Your task to perform on an android device: open app "Messages" Image 0: 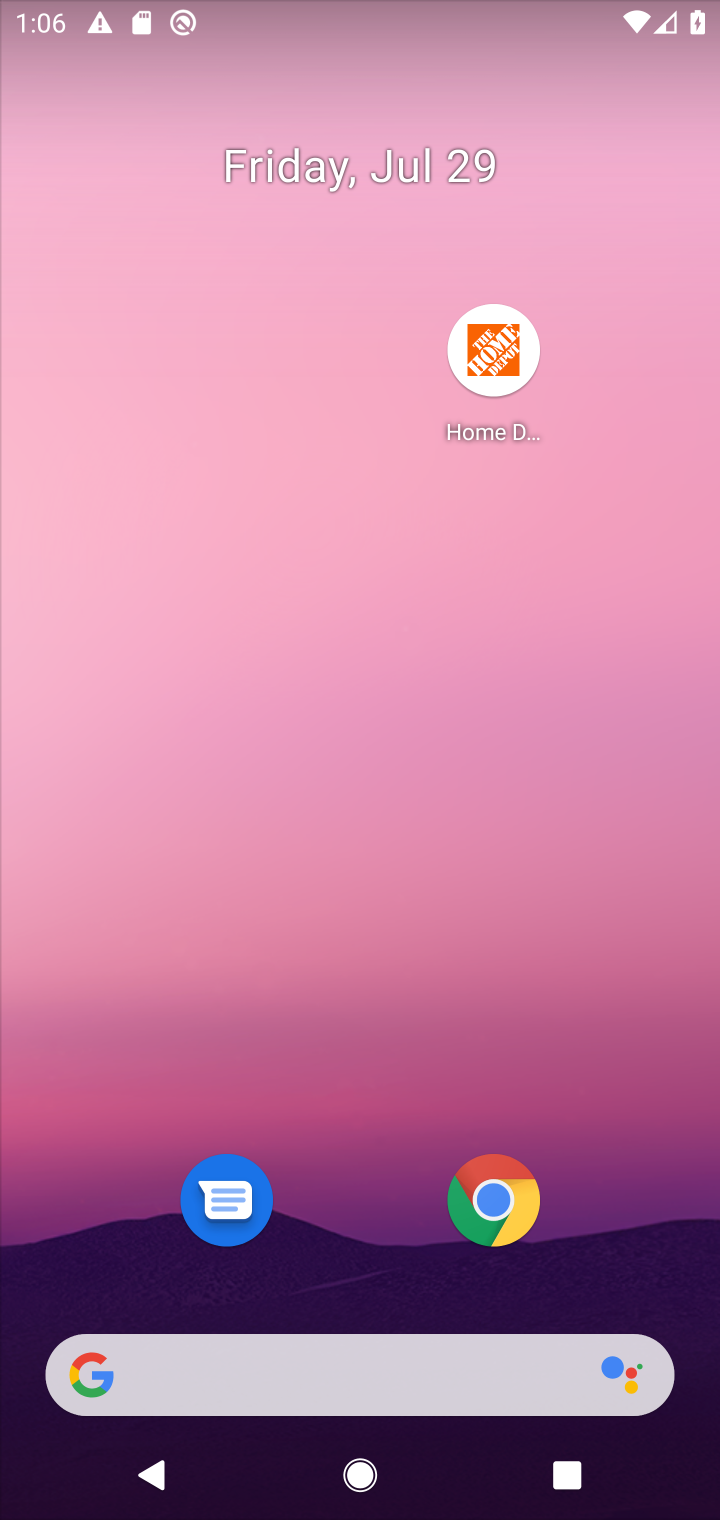
Step 0: drag from (562, 979) to (548, 127)
Your task to perform on an android device: open app "Messages" Image 1: 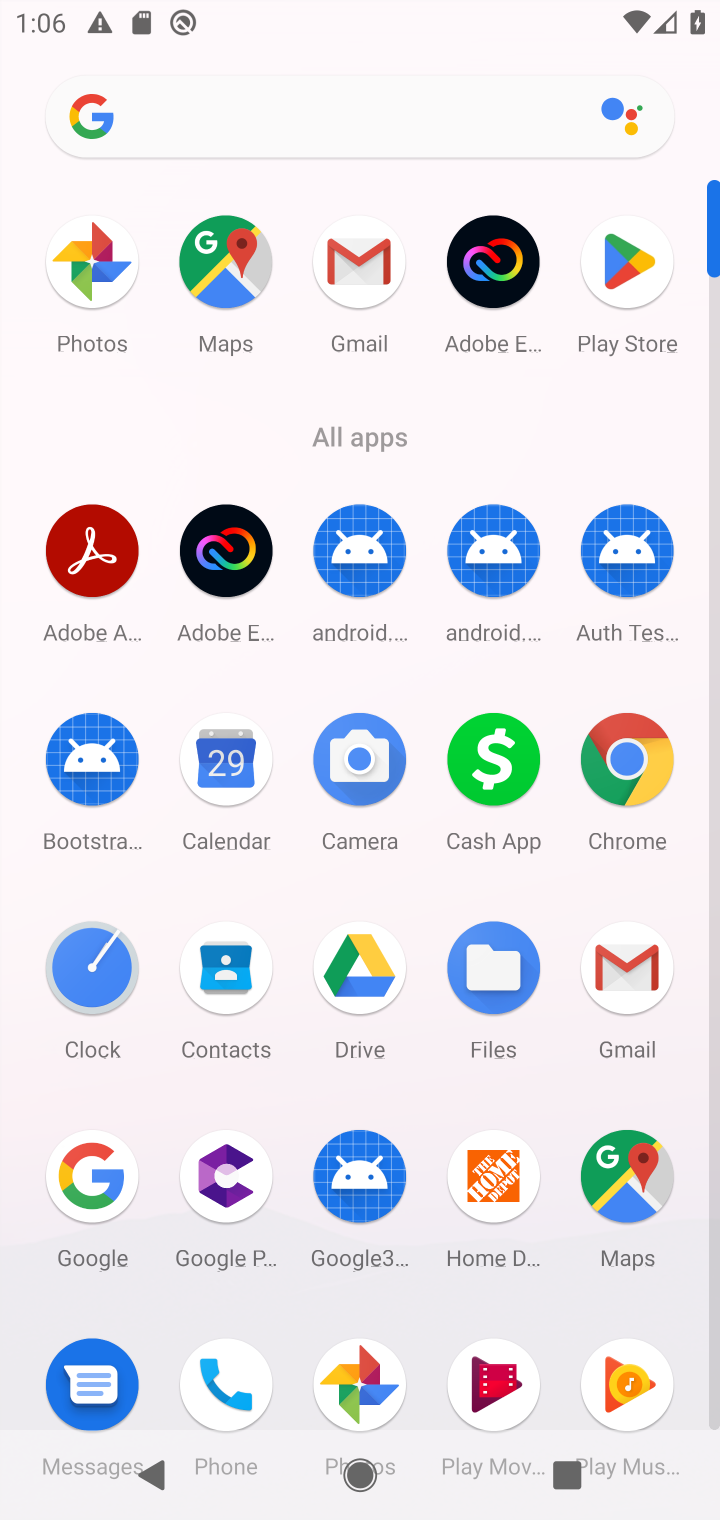
Step 1: click (627, 259)
Your task to perform on an android device: open app "Messages" Image 2: 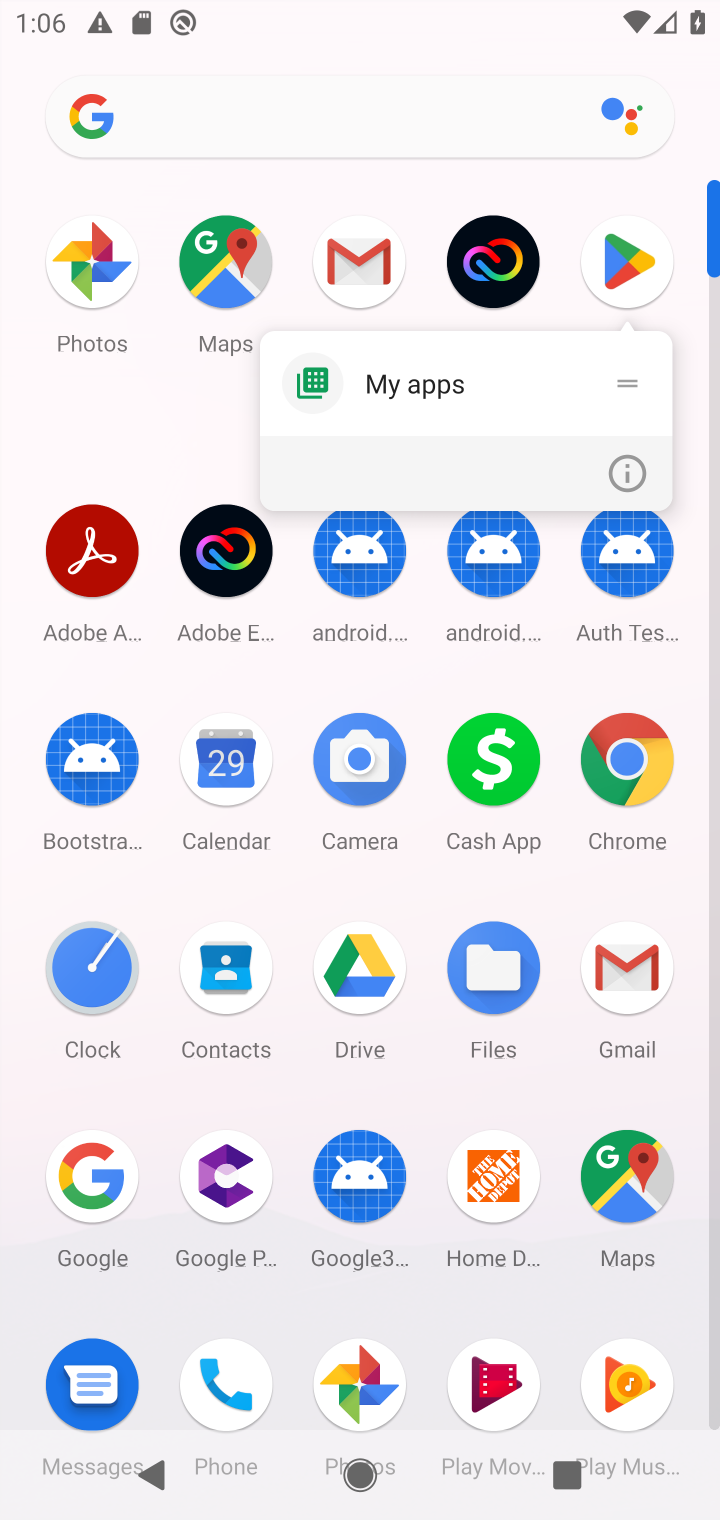
Step 2: click (624, 255)
Your task to perform on an android device: open app "Messages" Image 3: 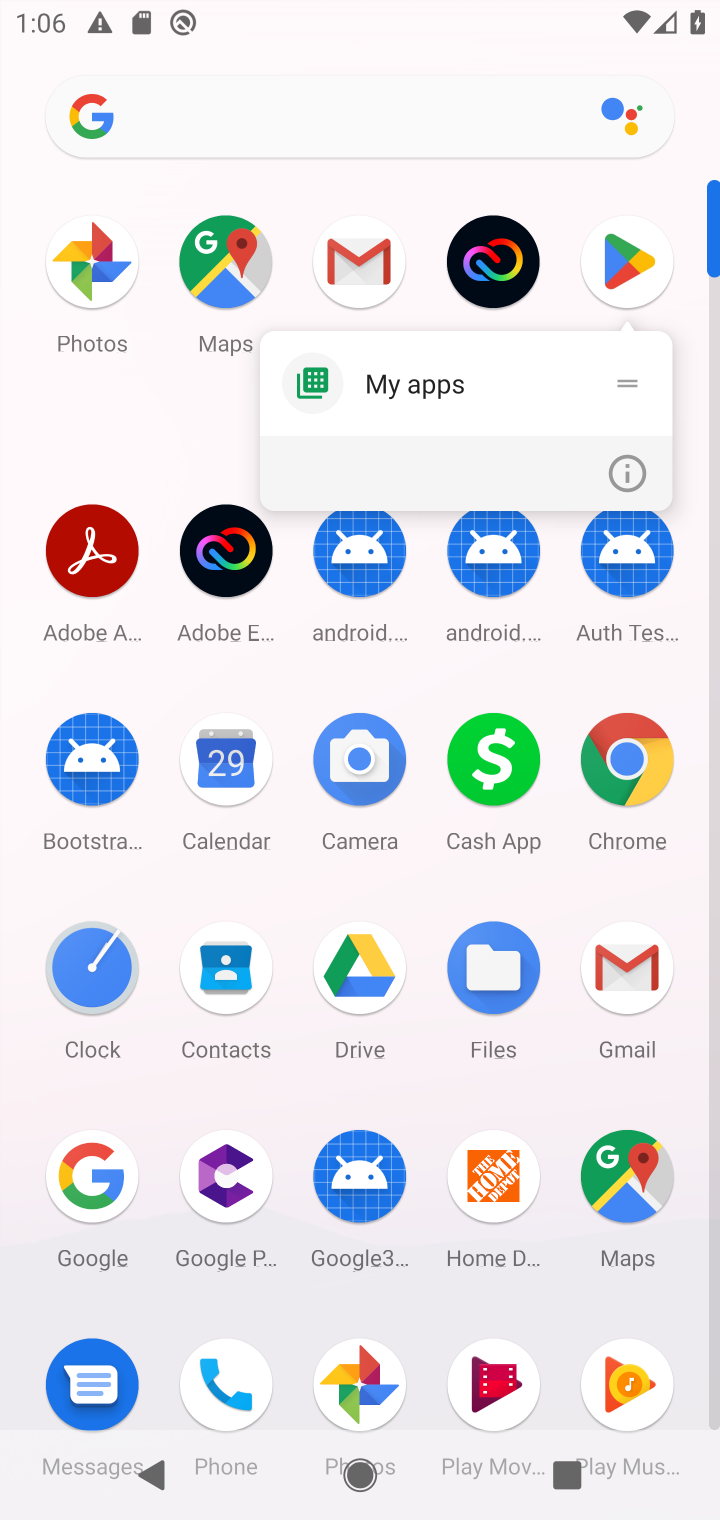
Step 3: click (624, 253)
Your task to perform on an android device: open app "Messages" Image 4: 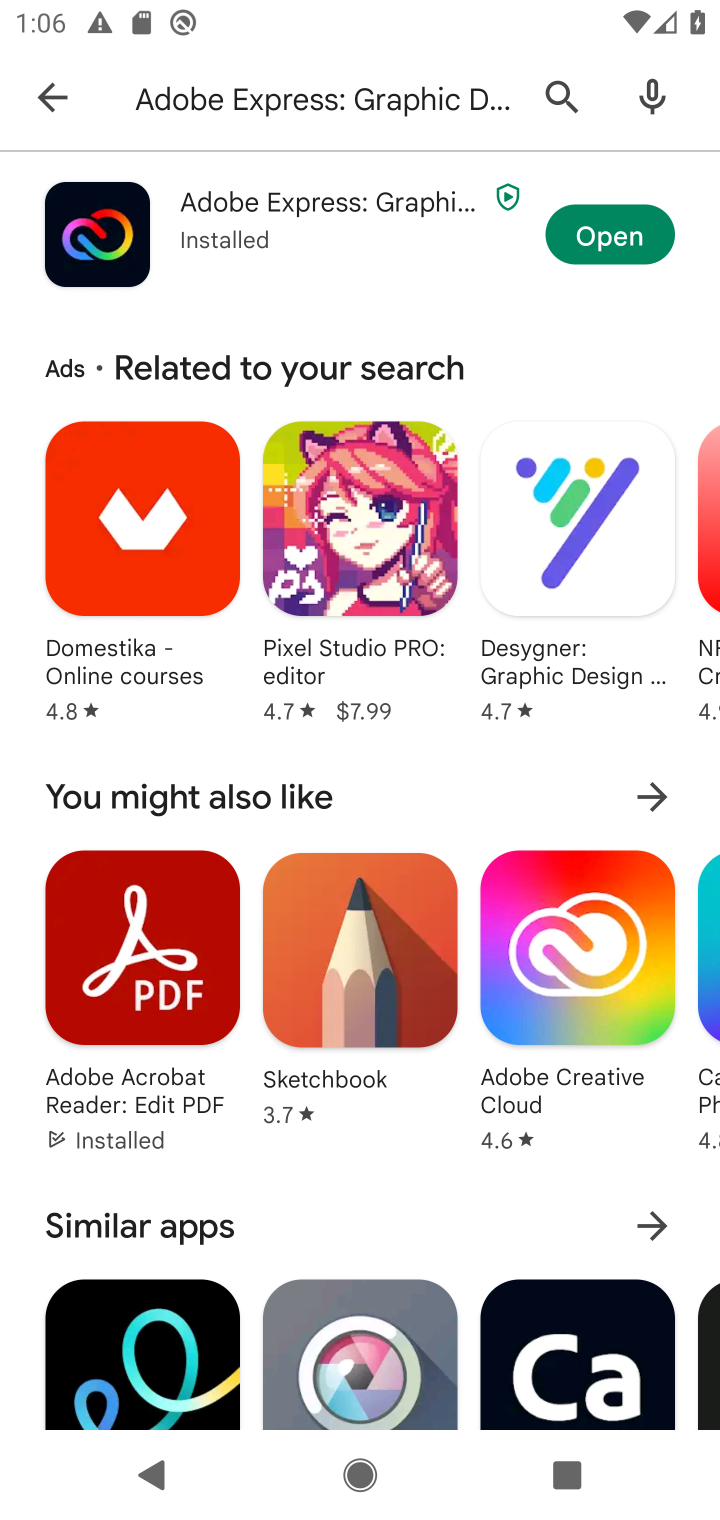
Step 4: click (302, 111)
Your task to perform on an android device: open app "Messages" Image 5: 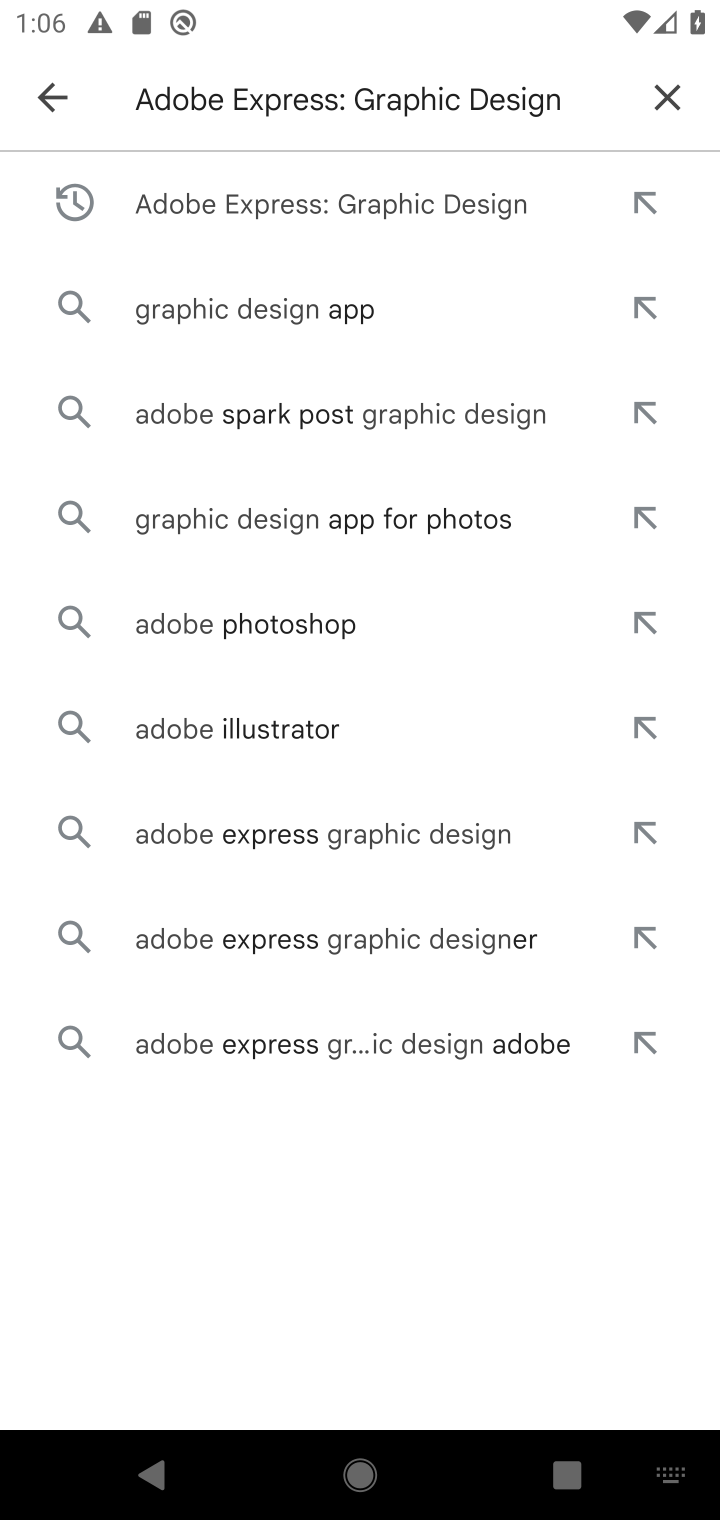
Step 5: click (681, 88)
Your task to perform on an android device: open app "Messages" Image 6: 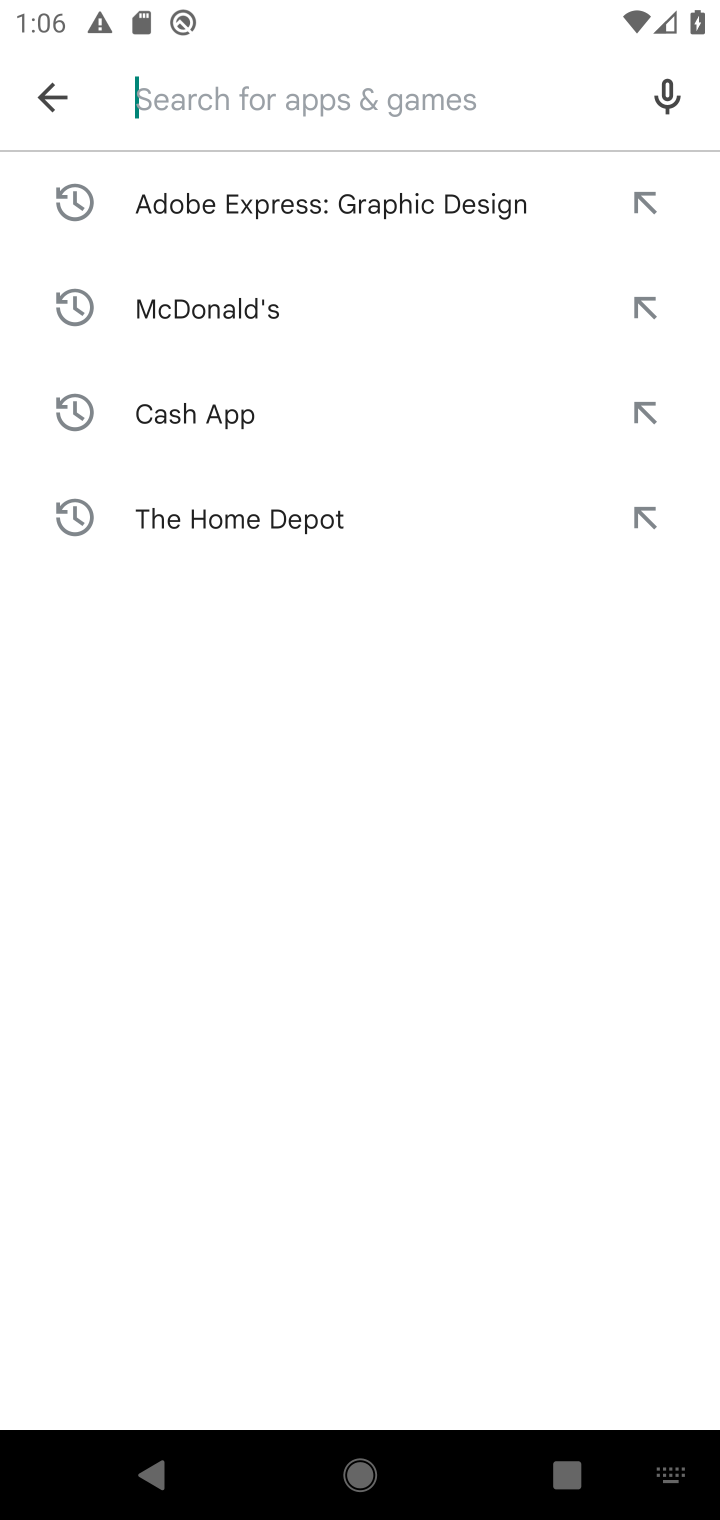
Step 6: type "Messages"
Your task to perform on an android device: open app "Messages" Image 7: 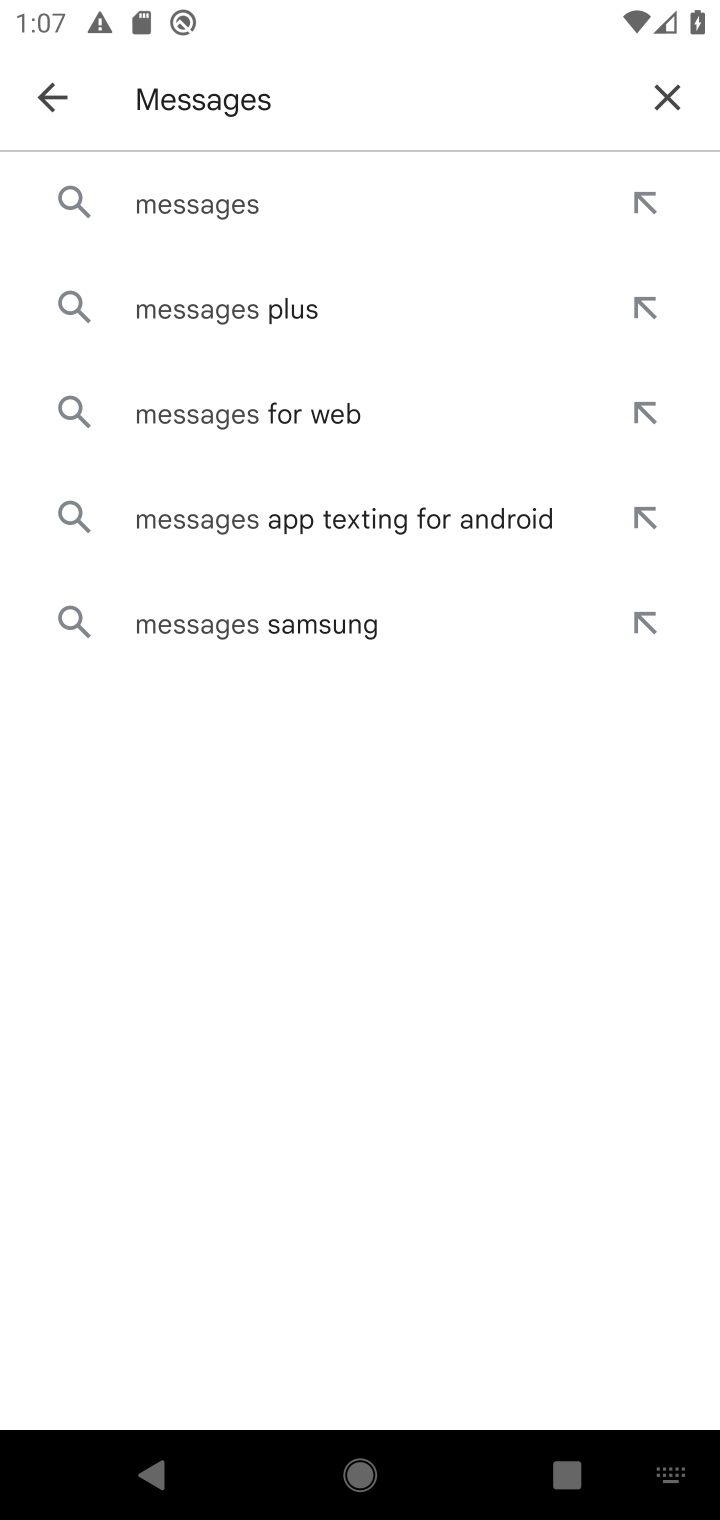
Step 7: press enter
Your task to perform on an android device: open app "Messages" Image 8: 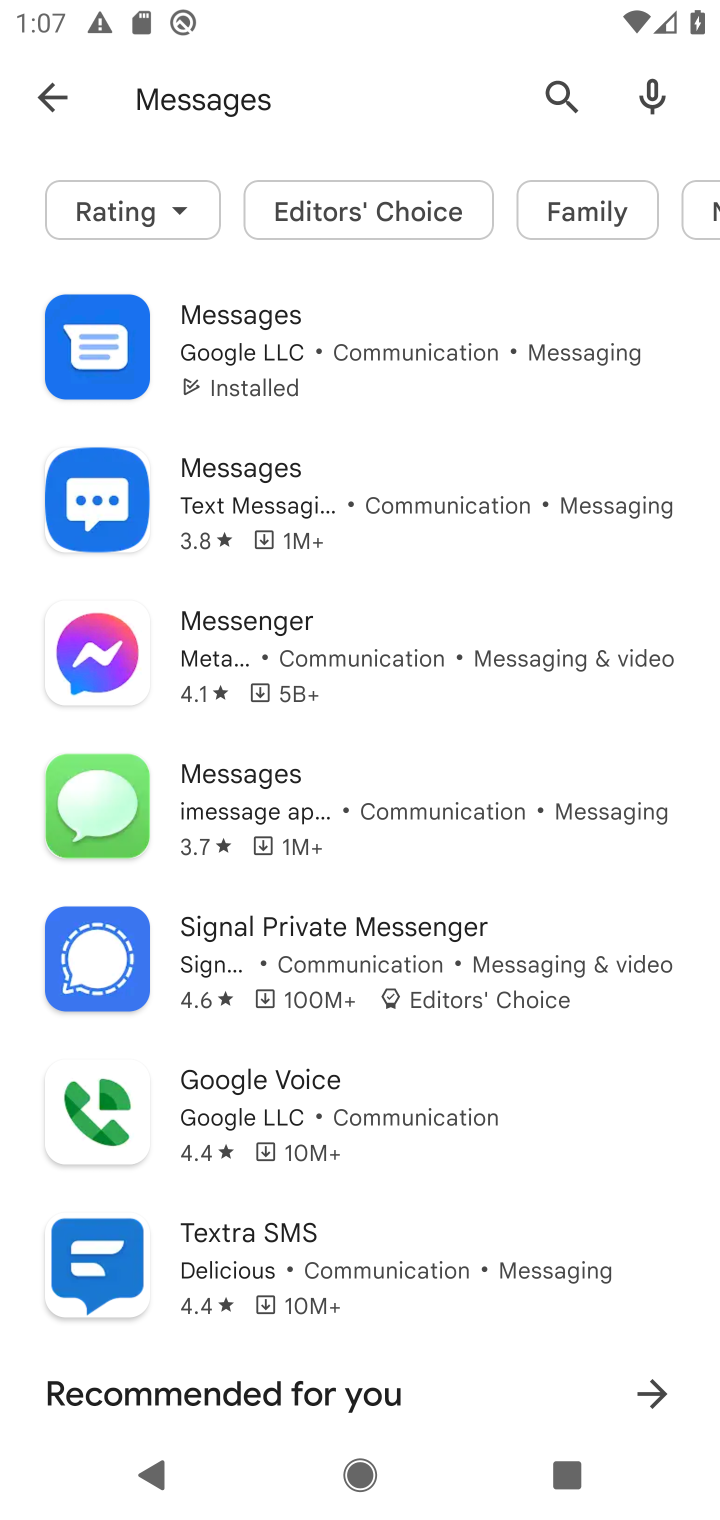
Step 8: click (323, 341)
Your task to perform on an android device: open app "Messages" Image 9: 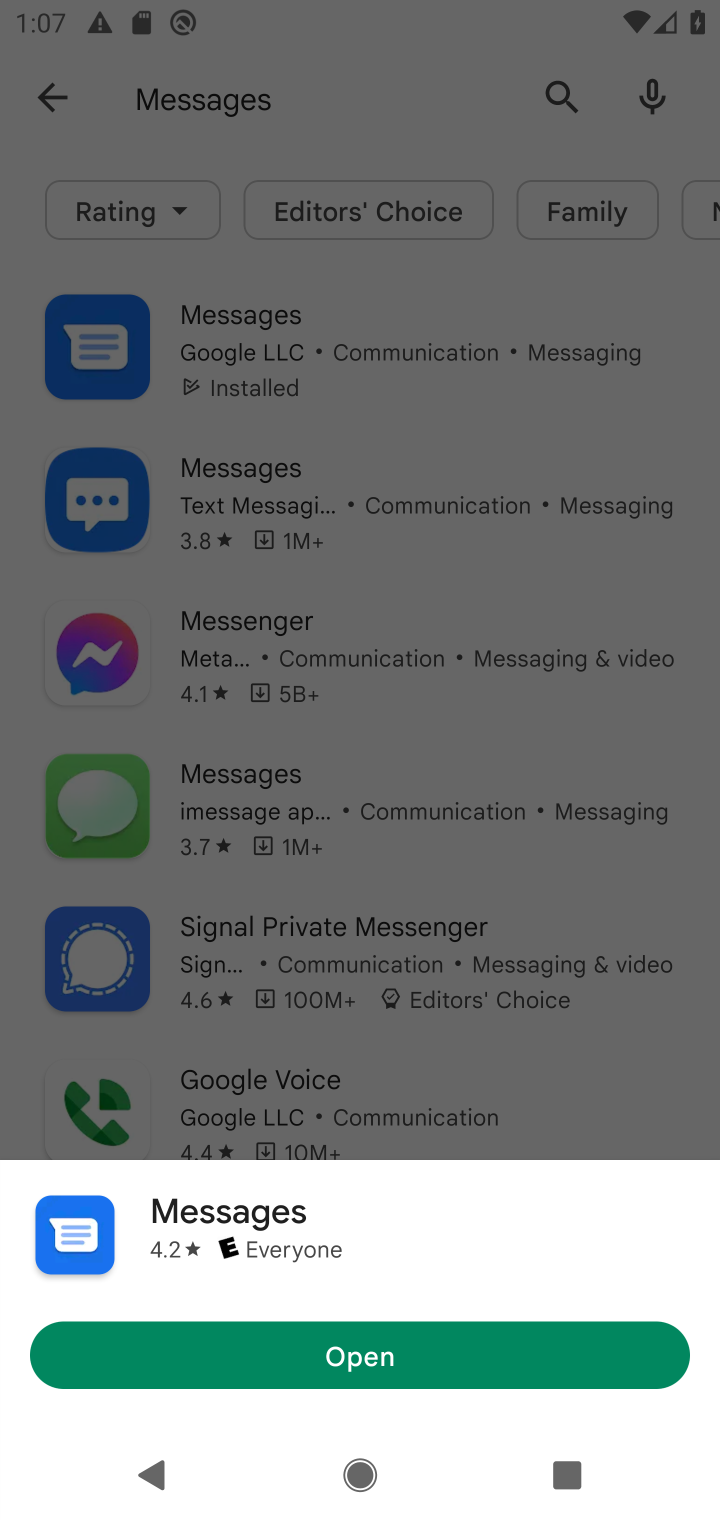
Step 9: click (559, 1367)
Your task to perform on an android device: open app "Messages" Image 10: 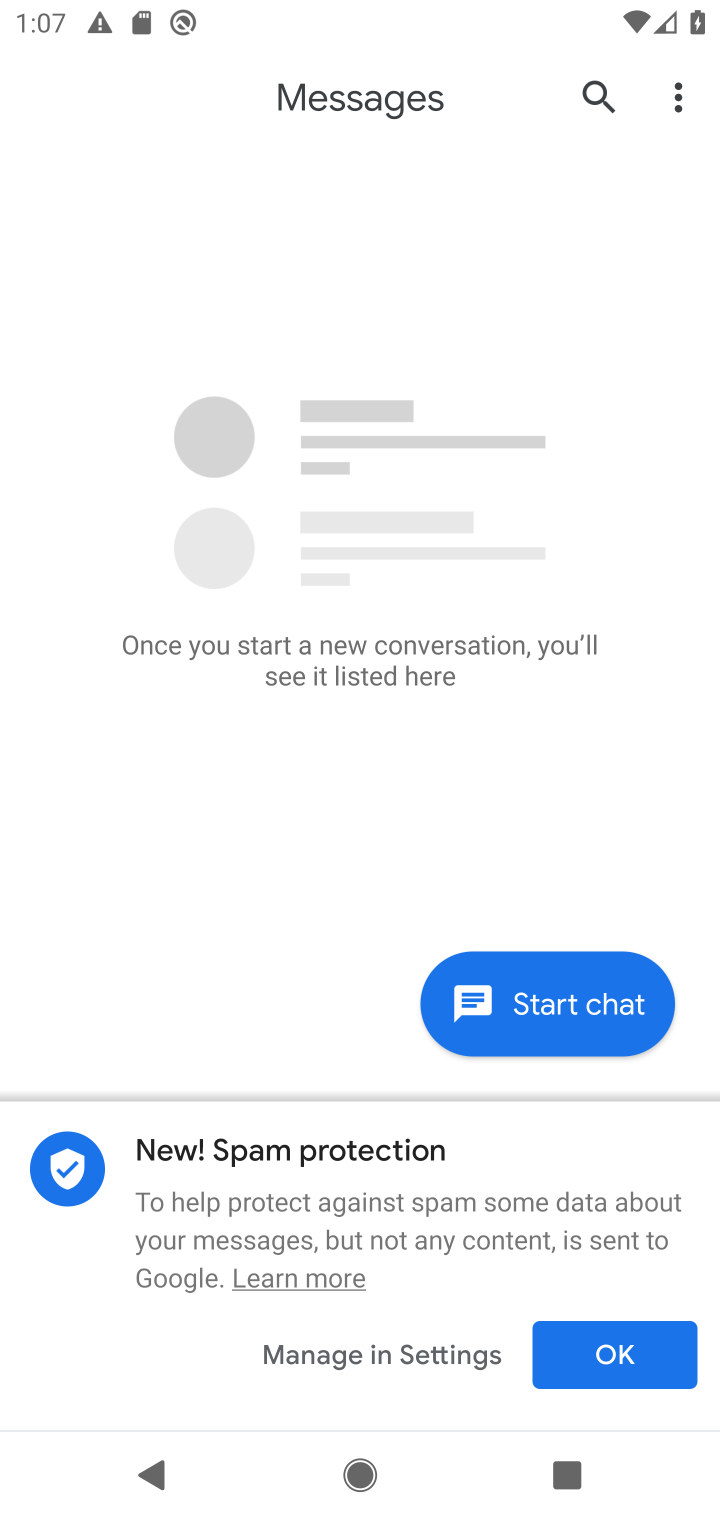
Step 10: task complete